Your task to perform on an android device: Show me the alarms in the clock app Image 0: 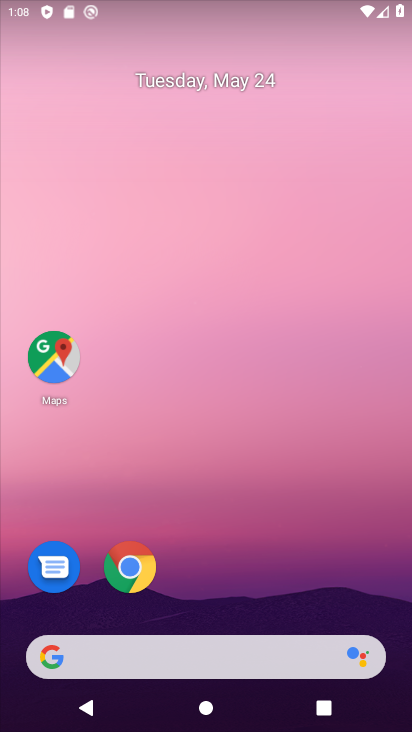
Step 0: drag from (143, 624) to (282, 140)
Your task to perform on an android device: Show me the alarms in the clock app Image 1: 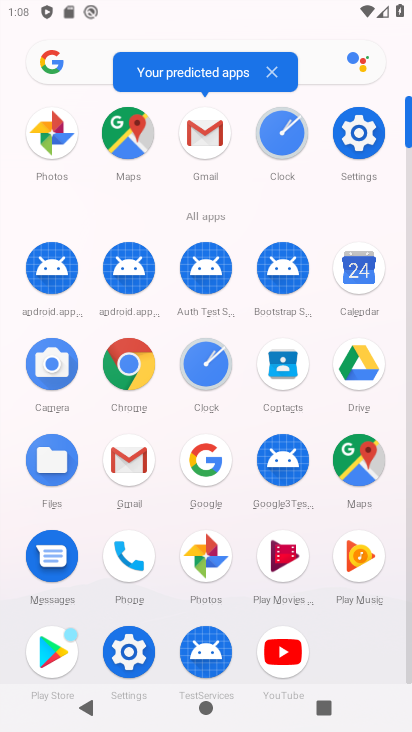
Step 1: click (202, 377)
Your task to perform on an android device: Show me the alarms in the clock app Image 2: 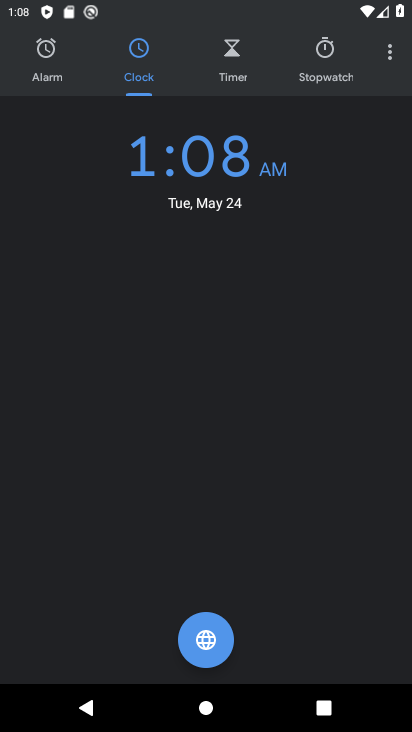
Step 2: click (64, 67)
Your task to perform on an android device: Show me the alarms in the clock app Image 3: 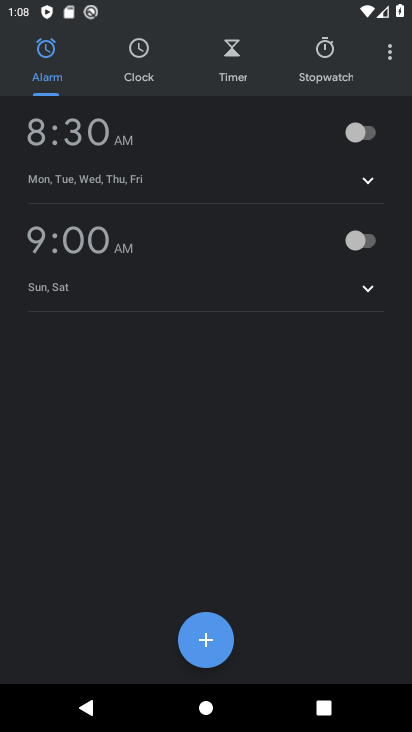
Step 3: task complete